Your task to perform on an android device: turn on the 24-hour format for clock Image 0: 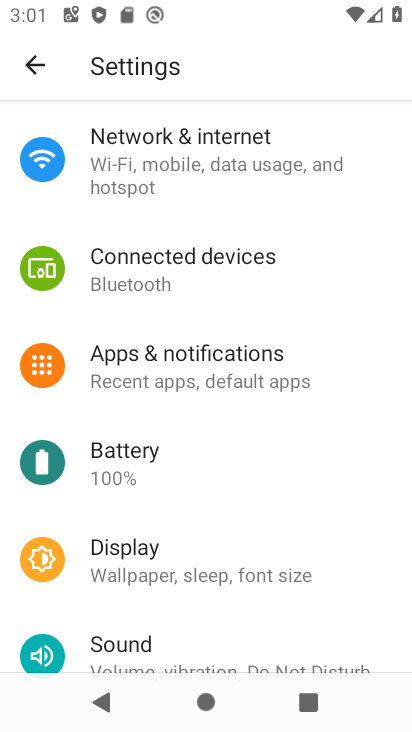
Step 0: press home button
Your task to perform on an android device: turn on the 24-hour format for clock Image 1: 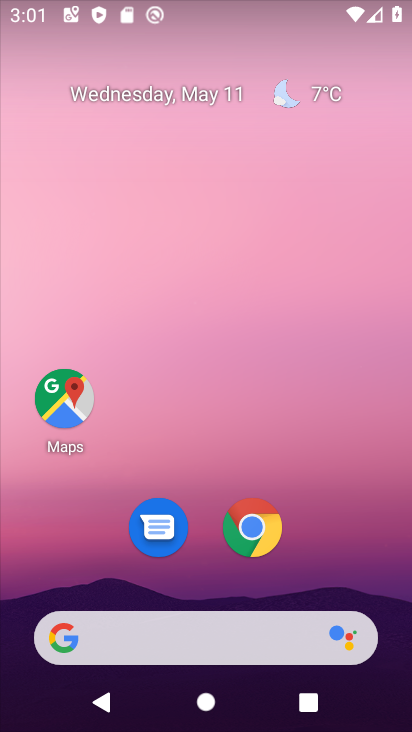
Step 1: drag from (359, 535) to (345, 8)
Your task to perform on an android device: turn on the 24-hour format for clock Image 2: 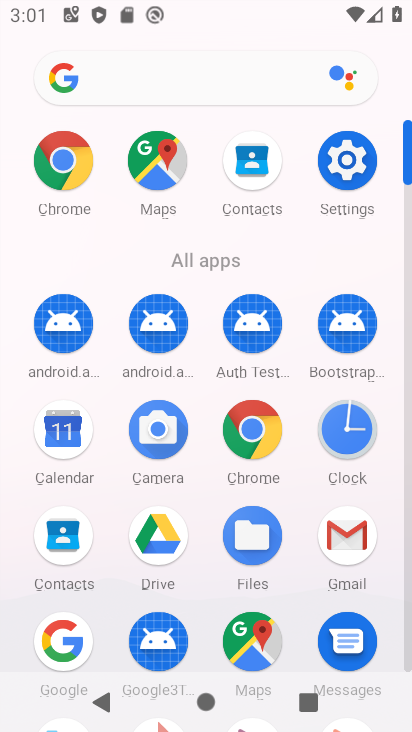
Step 2: click (348, 431)
Your task to perform on an android device: turn on the 24-hour format for clock Image 3: 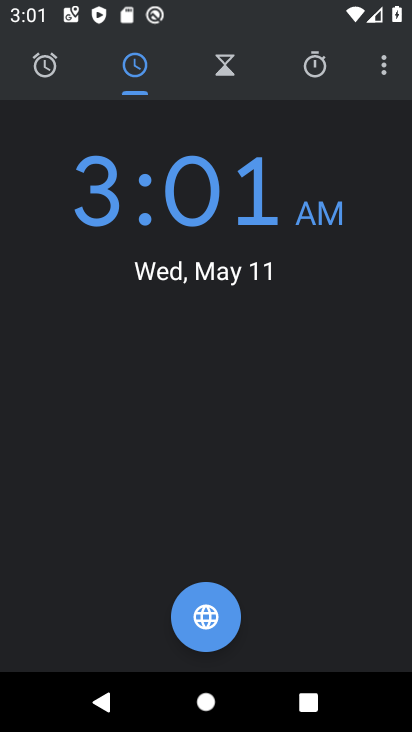
Step 3: click (382, 72)
Your task to perform on an android device: turn on the 24-hour format for clock Image 4: 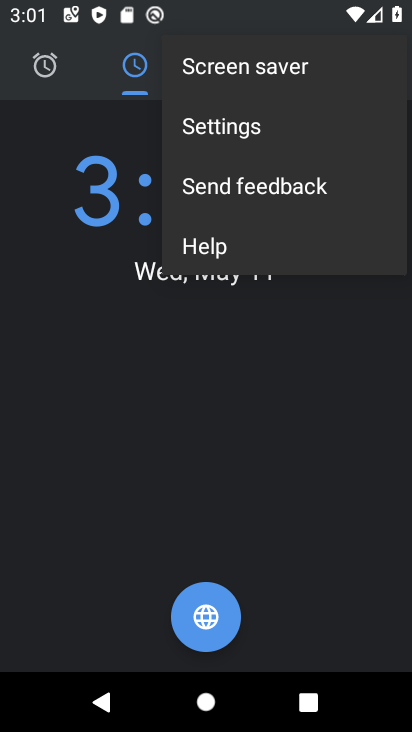
Step 4: click (227, 134)
Your task to perform on an android device: turn on the 24-hour format for clock Image 5: 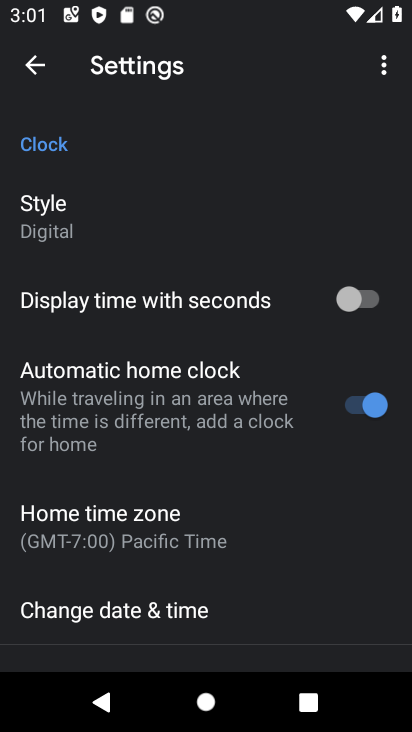
Step 5: click (141, 610)
Your task to perform on an android device: turn on the 24-hour format for clock Image 6: 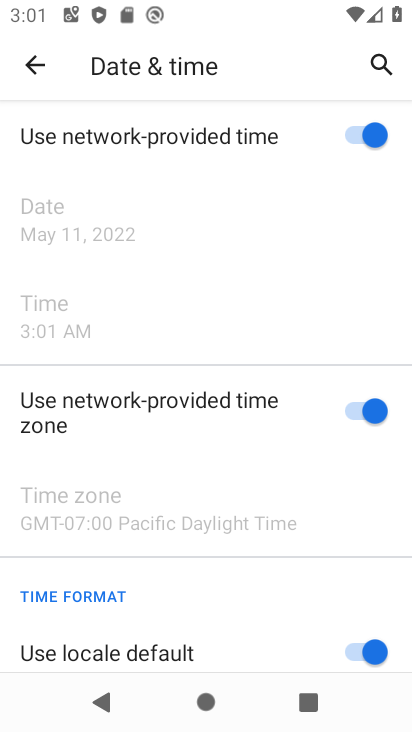
Step 6: drag from (141, 605) to (158, 199)
Your task to perform on an android device: turn on the 24-hour format for clock Image 7: 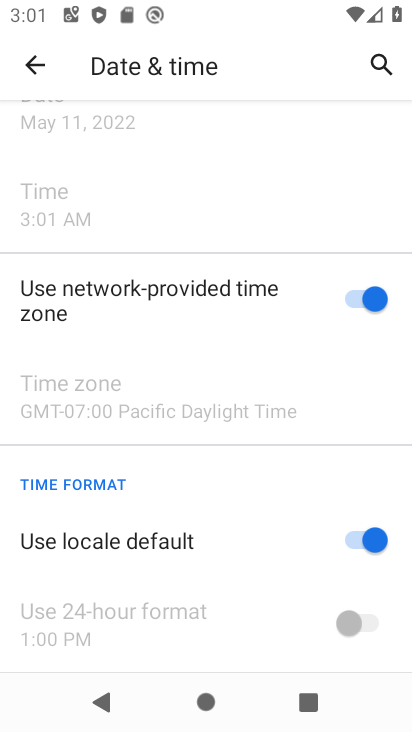
Step 7: click (369, 548)
Your task to perform on an android device: turn on the 24-hour format for clock Image 8: 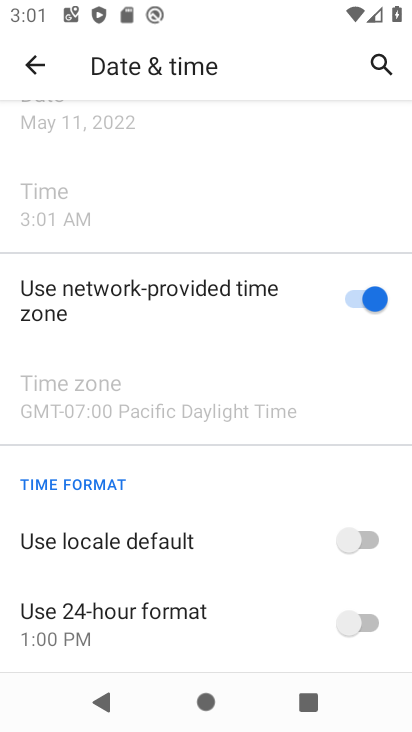
Step 8: click (375, 617)
Your task to perform on an android device: turn on the 24-hour format for clock Image 9: 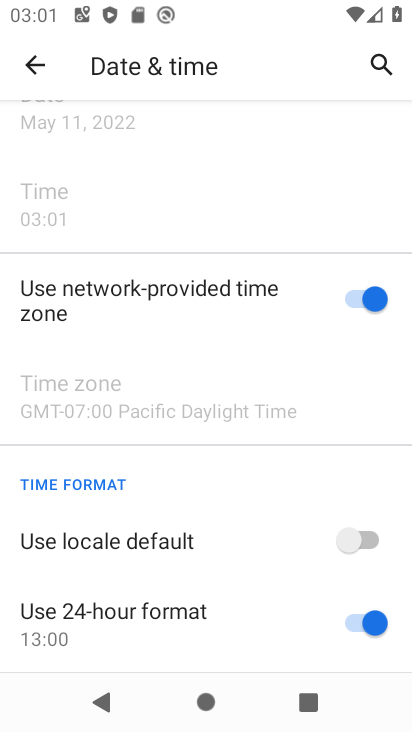
Step 9: task complete